Your task to perform on an android device: Search for hotels in New York Image 0: 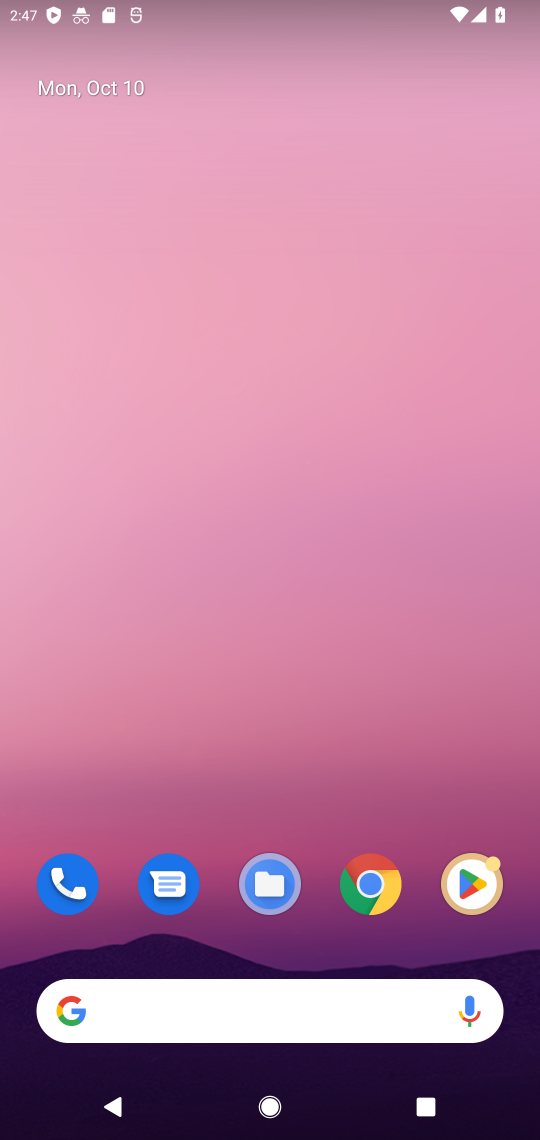
Step 0: click (228, 1017)
Your task to perform on an android device: Search for hotels in New York Image 1: 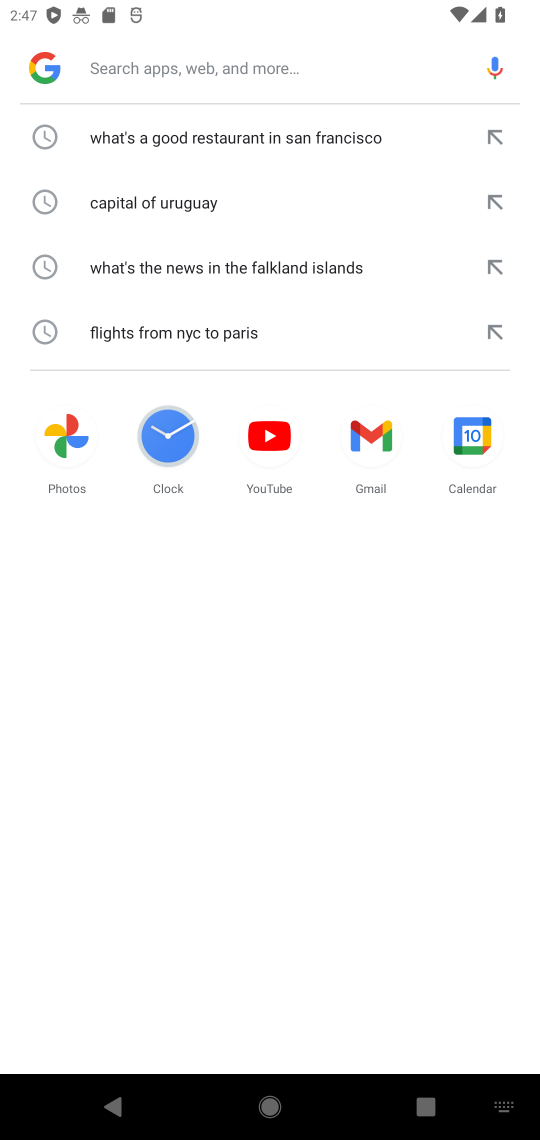
Step 1: type " hotels in New York"
Your task to perform on an android device: Search for hotels in New York Image 2: 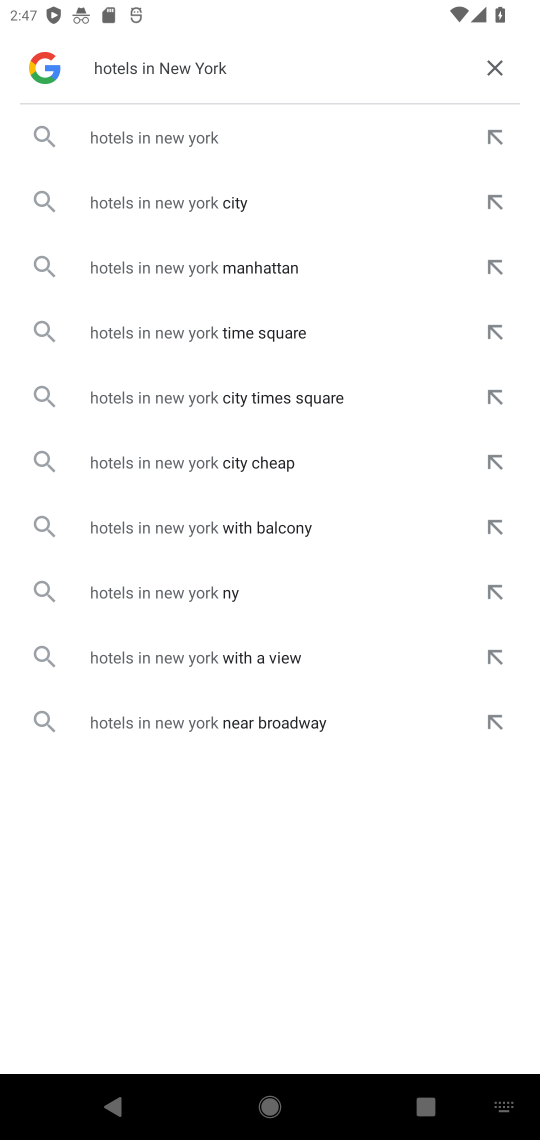
Step 2: click (161, 133)
Your task to perform on an android device: Search for hotels in New York Image 3: 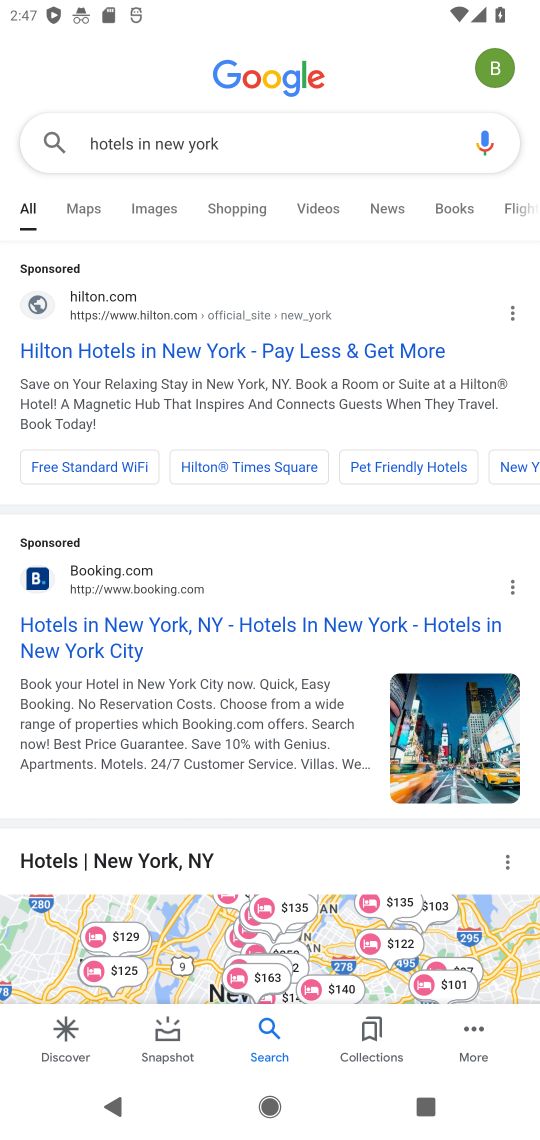
Step 3: click (165, 621)
Your task to perform on an android device: Search for hotels in New York Image 4: 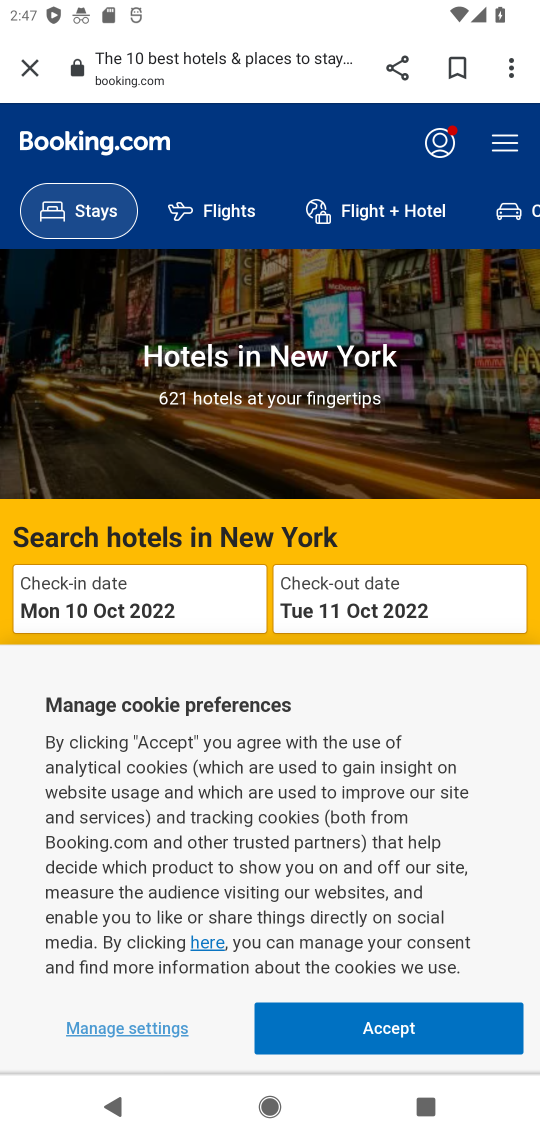
Step 4: click (350, 1035)
Your task to perform on an android device: Search for hotels in New York Image 5: 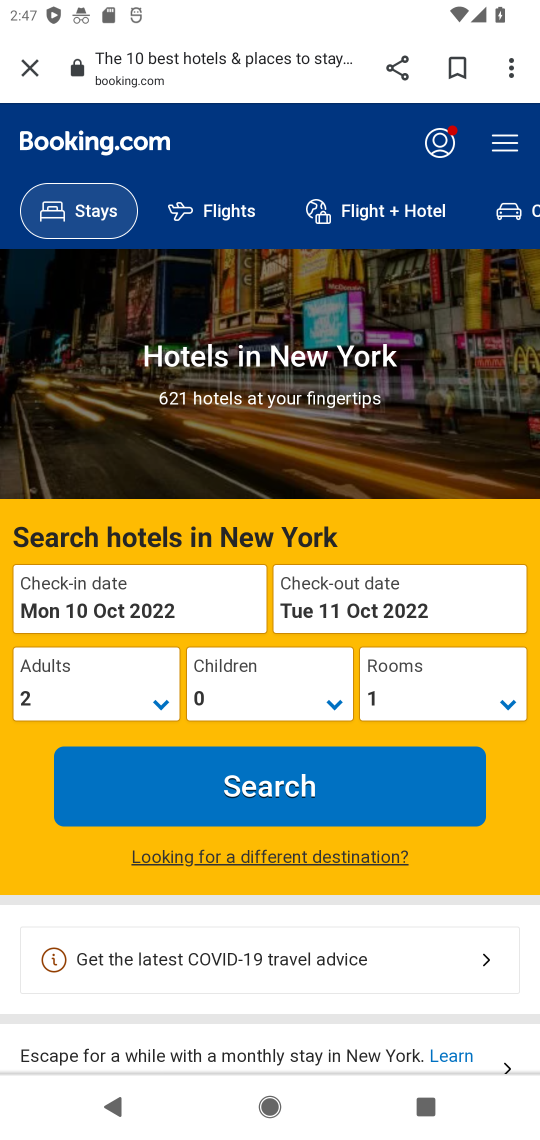
Step 5: click (250, 792)
Your task to perform on an android device: Search for hotels in New York Image 6: 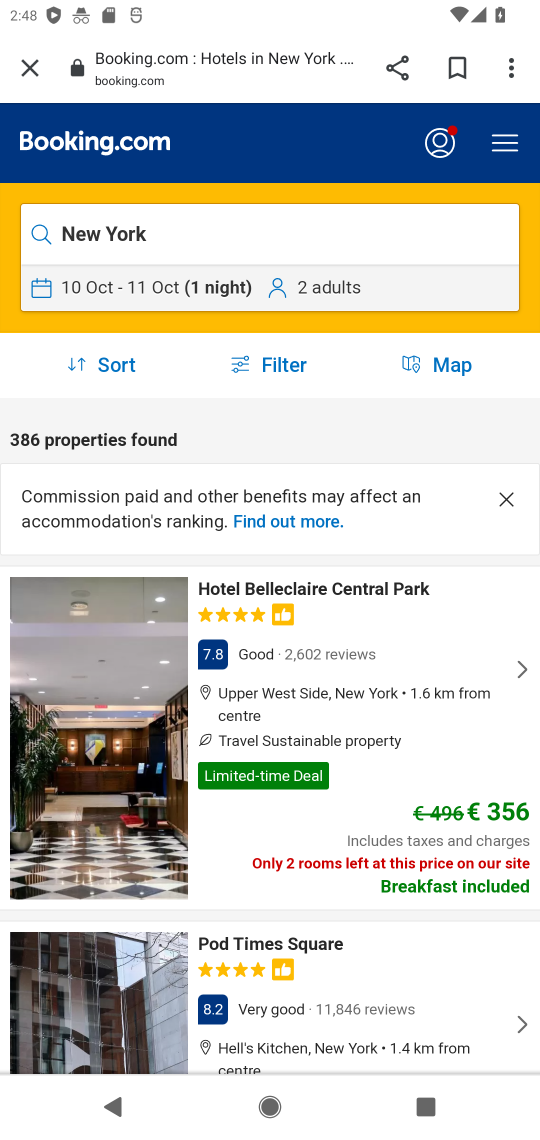
Step 6: task complete